Your task to perform on an android device: stop showing notifications on the lock screen Image 0: 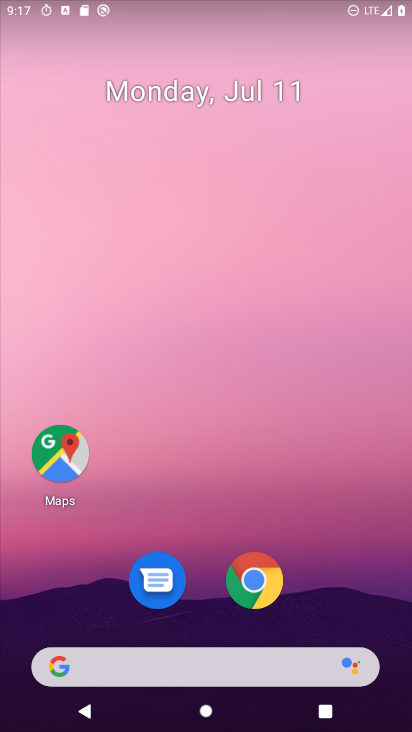
Step 0: drag from (307, 575) to (385, 42)
Your task to perform on an android device: stop showing notifications on the lock screen Image 1: 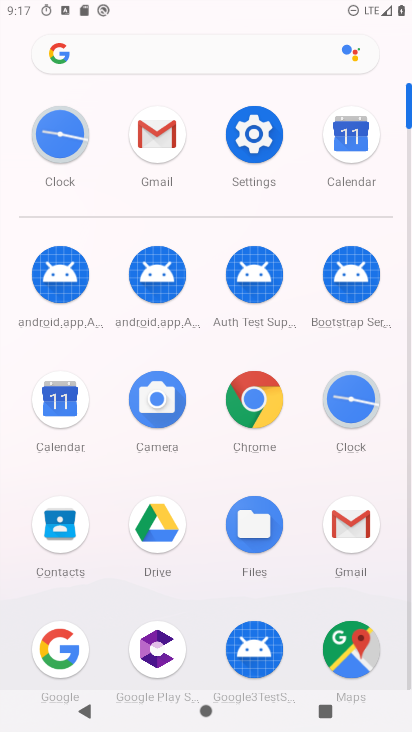
Step 1: click (261, 136)
Your task to perform on an android device: stop showing notifications on the lock screen Image 2: 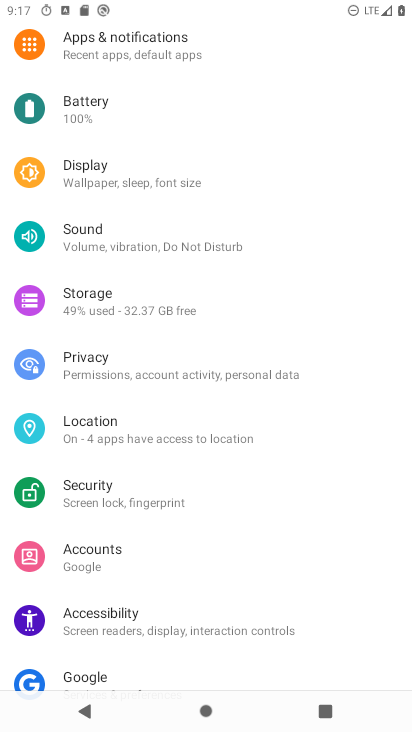
Step 2: drag from (207, 162) to (206, 456)
Your task to perform on an android device: stop showing notifications on the lock screen Image 3: 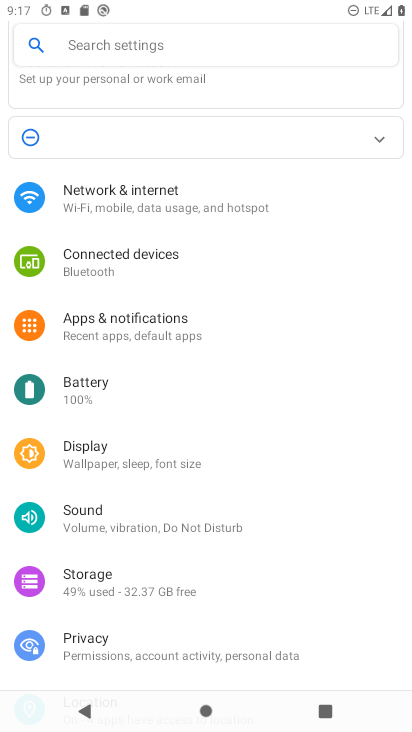
Step 3: click (186, 323)
Your task to perform on an android device: stop showing notifications on the lock screen Image 4: 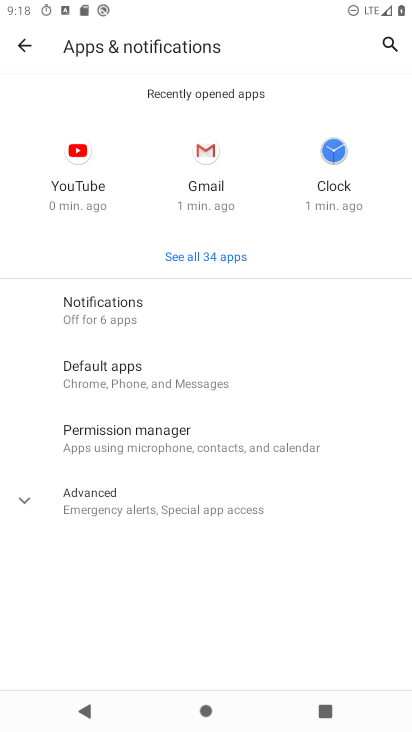
Step 4: click (122, 312)
Your task to perform on an android device: stop showing notifications on the lock screen Image 5: 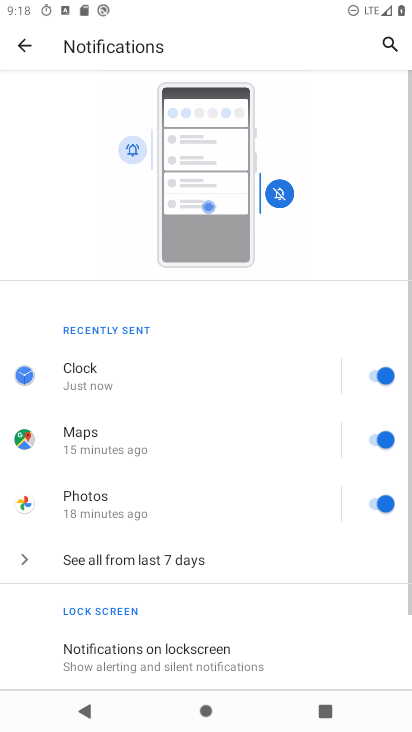
Step 5: drag from (233, 530) to (269, 269)
Your task to perform on an android device: stop showing notifications on the lock screen Image 6: 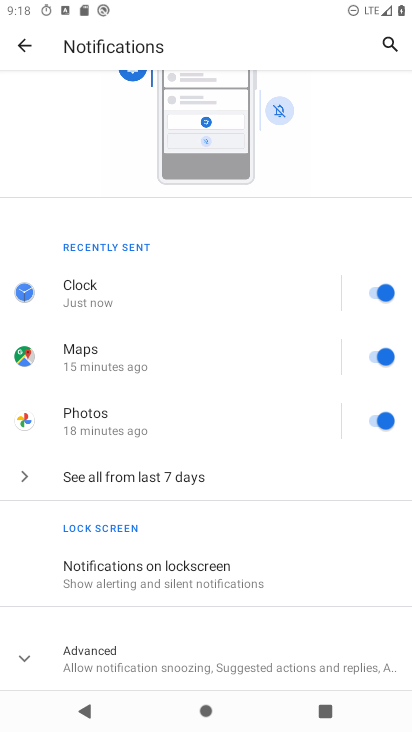
Step 6: click (179, 578)
Your task to perform on an android device: stop showing notifications on the lock screen Image 7: 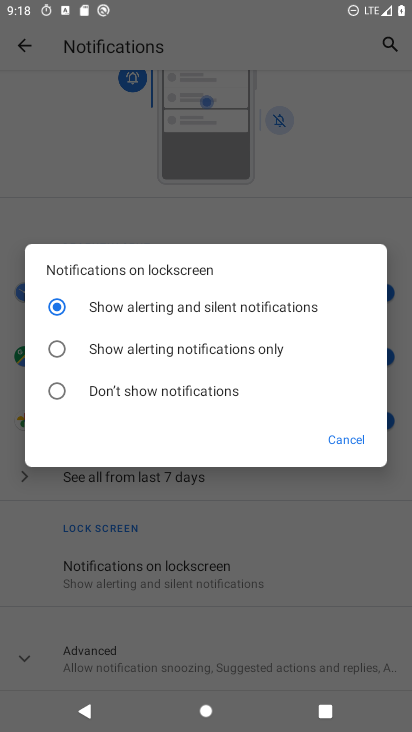
Step 7: click (50, 389)
Your task to perform on an android device: stop showing notifications on the lock screen Image 8: 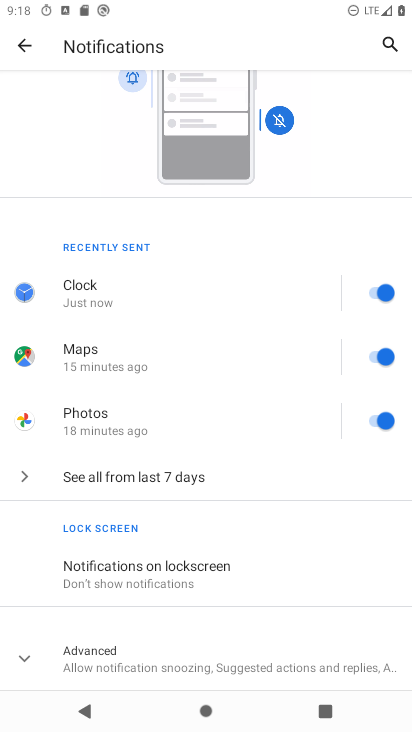
Step 8: task complete